Your task to perform on an android device: open a new tab in the chrome app Image 0: 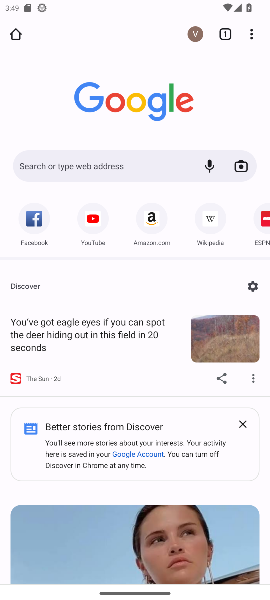
Step 0: press home button
Your task to perform on an android device: open a new tab in the chrome app Image 1: 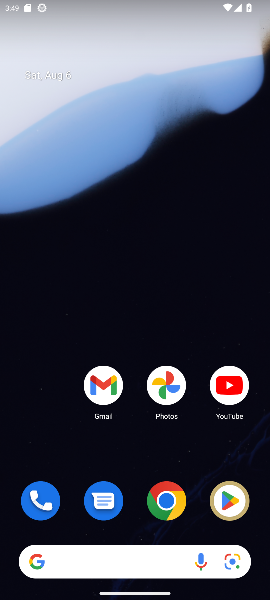
Step 1: click (161, 496)
Your task to perform on an android device: open a new tab in the chrome app Image 2: 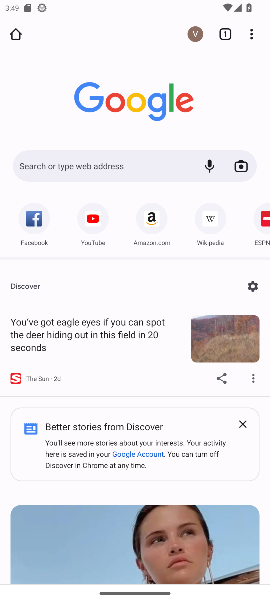
Step 2: click (251, 36)
Your task to perform on an android device: open a new tab in the chrome app Image 3: 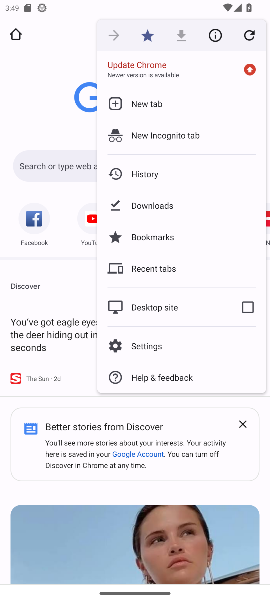
Step 3: click (178, 103)
Your task to perform on an android device: open a new tab in the chrome app Image 4: 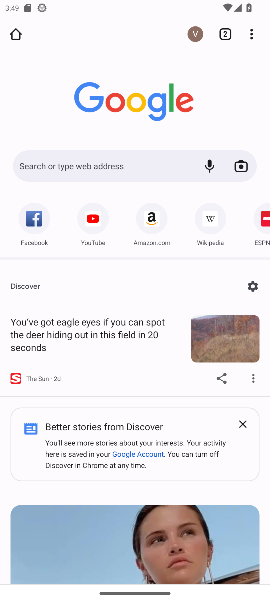
Step 4: task complete